Your task to perform on an android device: Empty the shopping cart on amazon. Search for razer blade on amazon, select the first entry, and add it to the cart. Image 0: 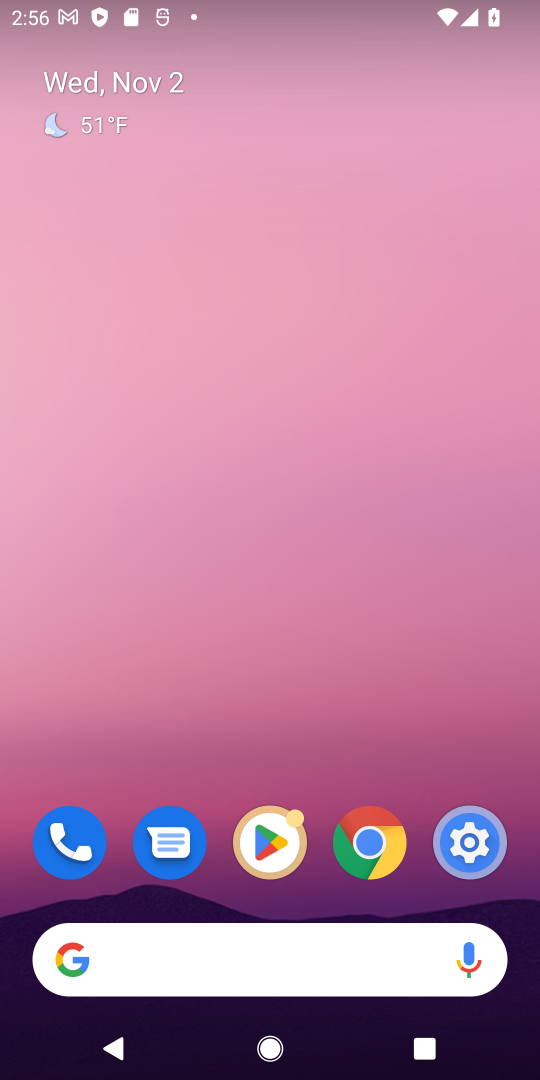
Step 0: click (269, 949)
Your task to perform on an android device: Empty the shopping cart on amazon. Search for razer blade on amazon, select the first entry, and add it to the cart. Image 1: 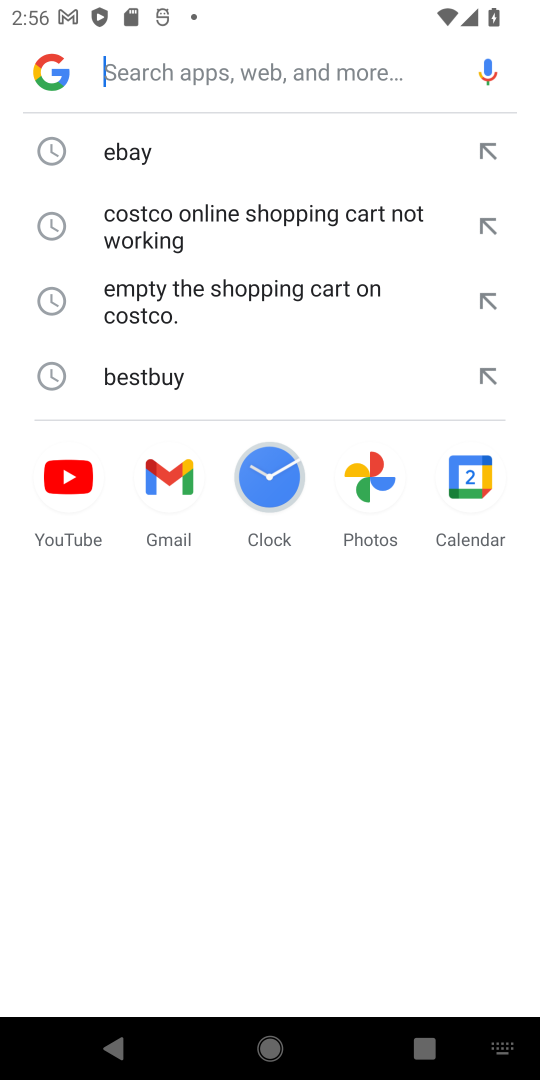
Step 1: type "amazon"
Your task to perform on an android device: Empty the shopping cart on amazon. Search for razer blade on amazon, select the first entry, and add it to the cart. Image 2: 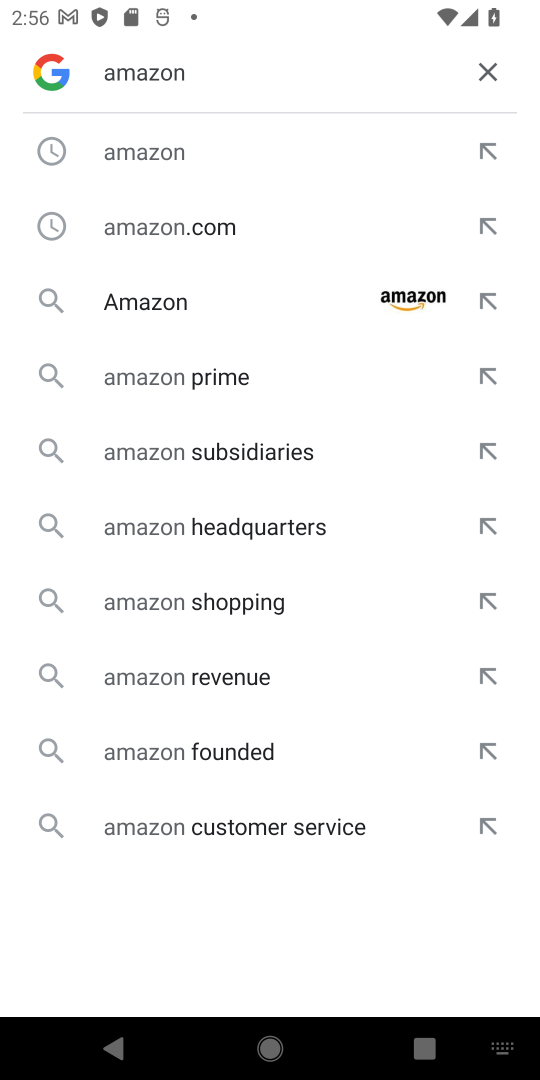
Step 2: click (150, 306)
Your task to perform on an android device: Empty the shopping cart on amazon. Search for razer blade on amazon, select the first entry, and add it to the cart. Image 3: 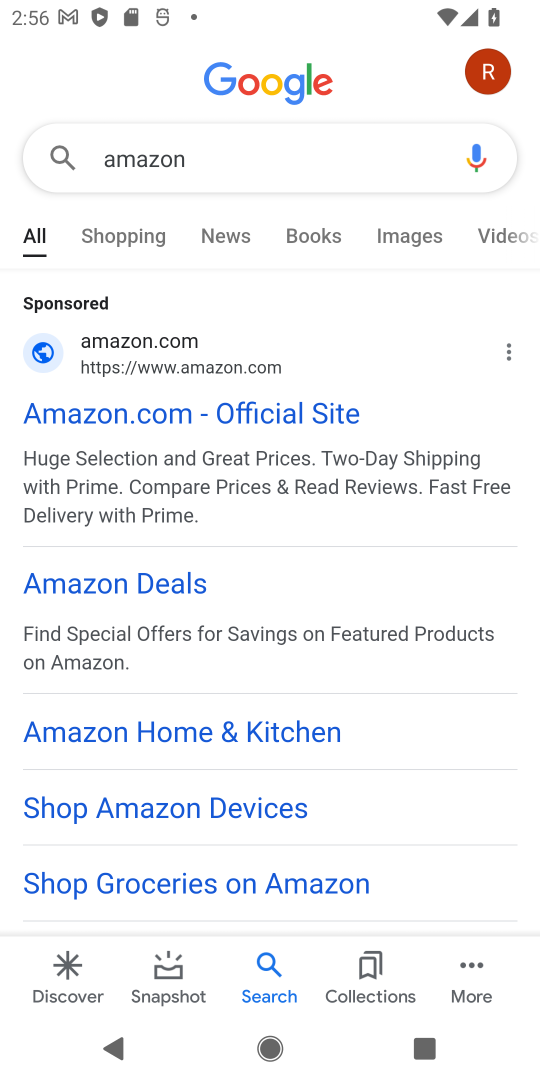
Step 3: click (131, 412)
Your task to perform on an android device: Empty the shopping cart on amazon. Search for razer blade on amazon, select the first entry, and add it to the cart. Image 4: 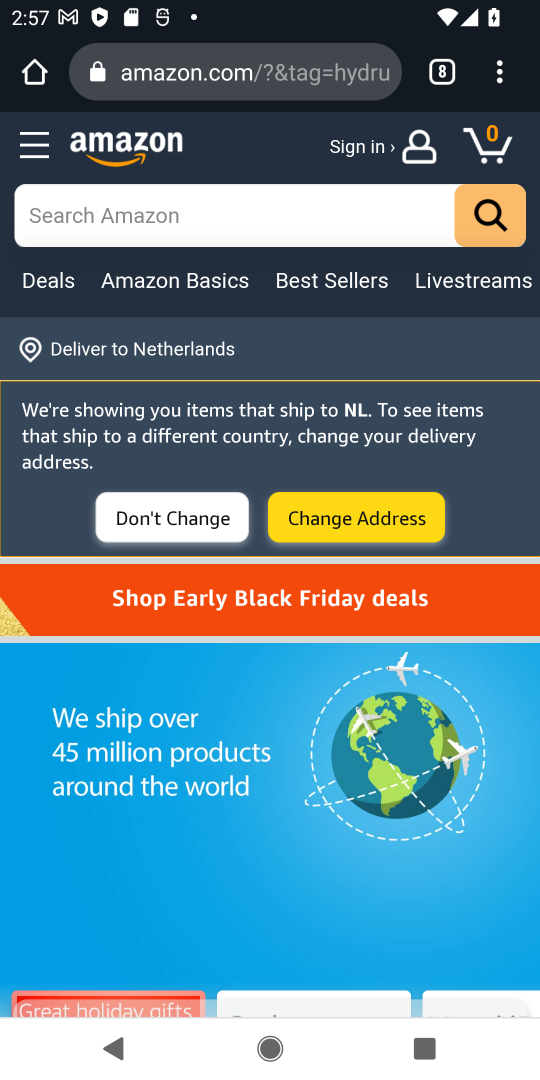
Step 4: click (208, 212)
Your task to perform on an android device: Empty the shopping cart on amazon. Search for razer blade on amazon, select the first entry, and add it to the cart. Image 5: 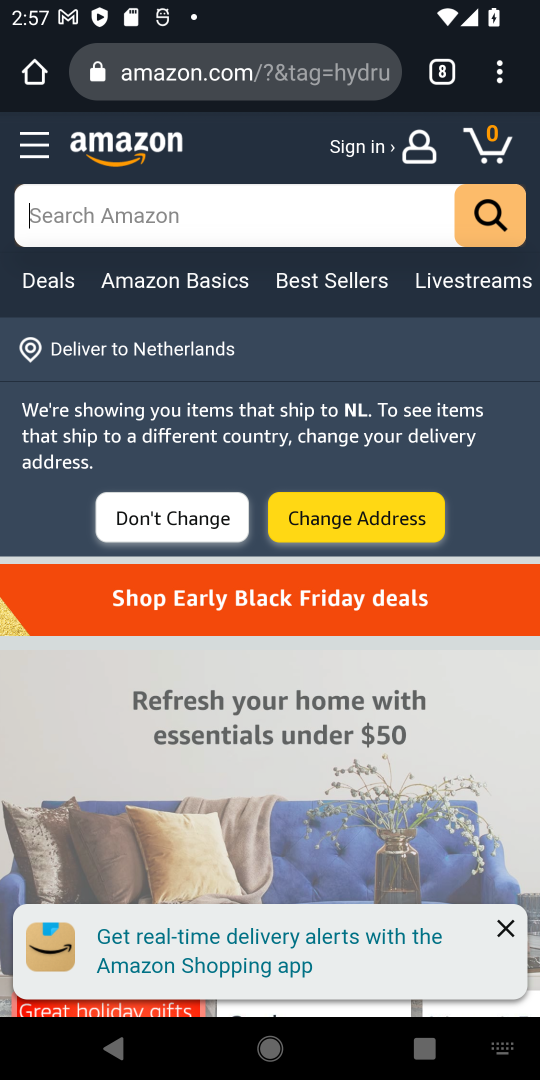
Step 5: type "razer b"
Your task to perform on an android device: Empty the shopping cart on amazon. Search for razer blade on amazon, select the first entry, and add it to the cart. Image 6: 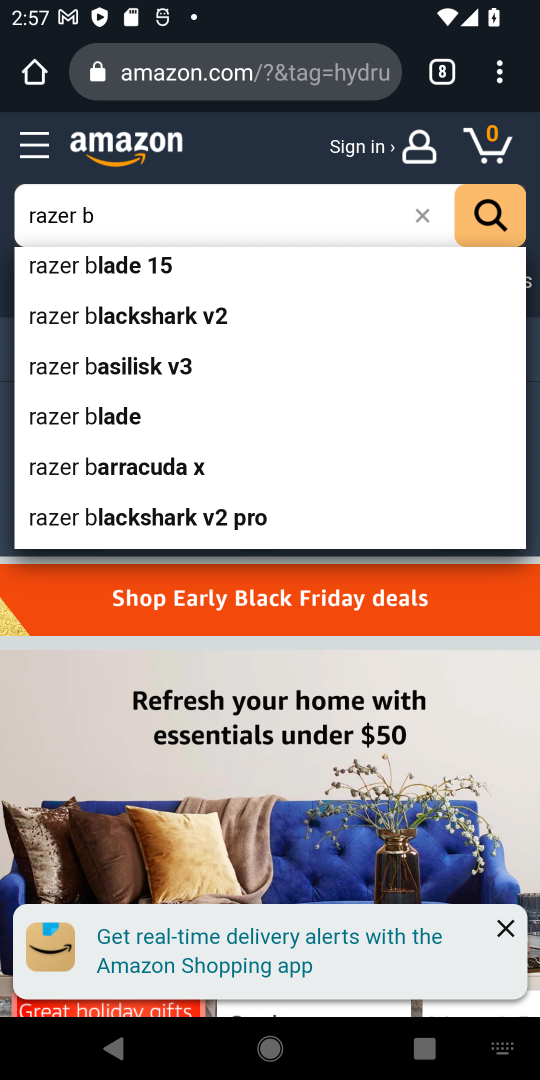
Step 6: click (115, 414)
Your task to perform on an android device: Empty the shopping cart on amazon. Search for razer blade on amazon, select the first entry, and add it to the cart. Image 7: 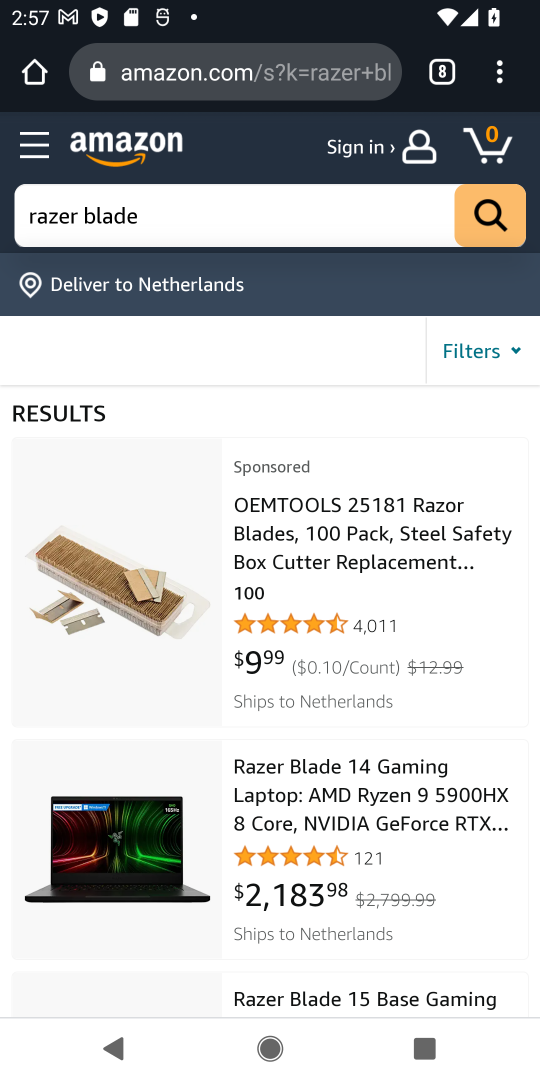
Step 7: click (354, 525)
Your task to perform on an android device: Empty the shopping cart on amazon. Search for razer blade on amazon, select the first entry, and add it to the cart. Image 8: 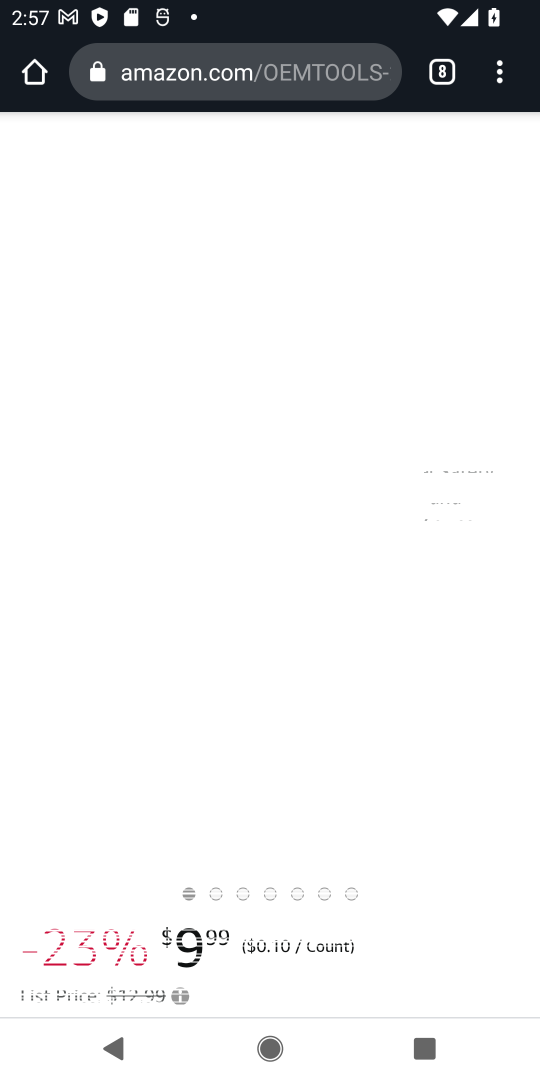
Step 8: drag from (388, 849) to (341, 516)
Your task to perform on an android device: Empty the shopping cart on amazon. Search for razer blade on amazon, select the first entry, and add it to the cart. Image 9: 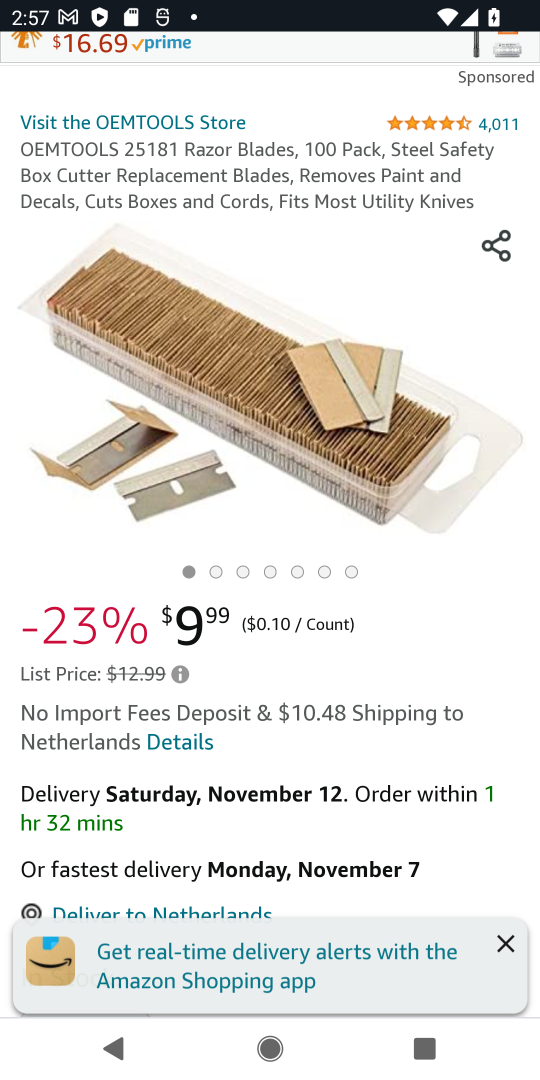
Step 9: drag from (452, 561) to (411, 309)
Your task to perform on an android device: Empty the shopping cart on amazon. Search for razer blade on amazon, select the first entry, and add it to the cart. Image 10: 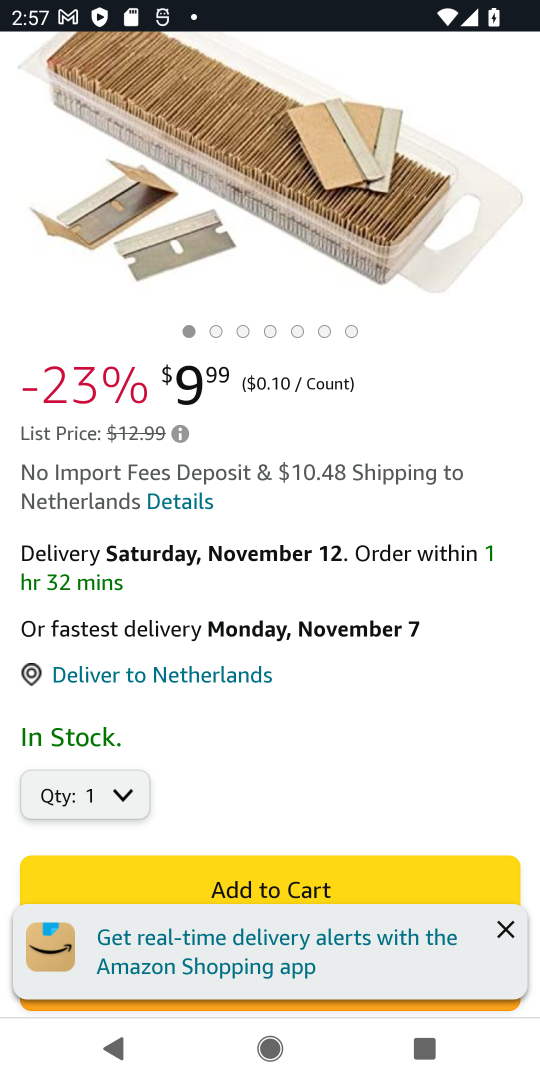
Step 10: drag from (319, 702) to (227, 363)
Your task to perform on an android device: Empty the shopping cart on amazon. Search for razer blade on amazon, select the first entry, and add it to the cart. Image 11: 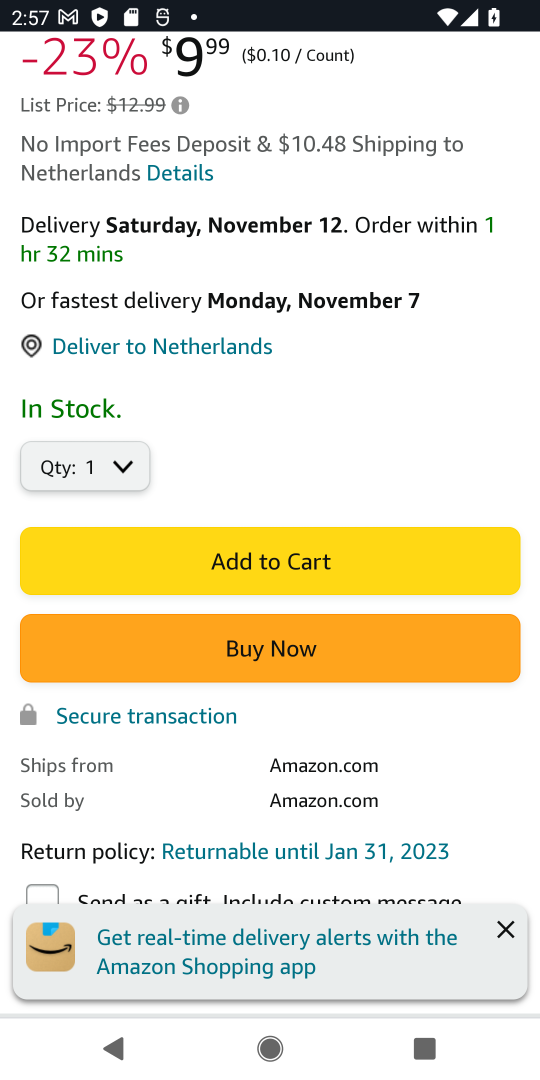
Step 11: click (284, 565)
Your task to perform on an android device: Empty the shopping cart on amazon. Search for razer blade on amazon, select the first entry, and add it to the cart. Image 12: 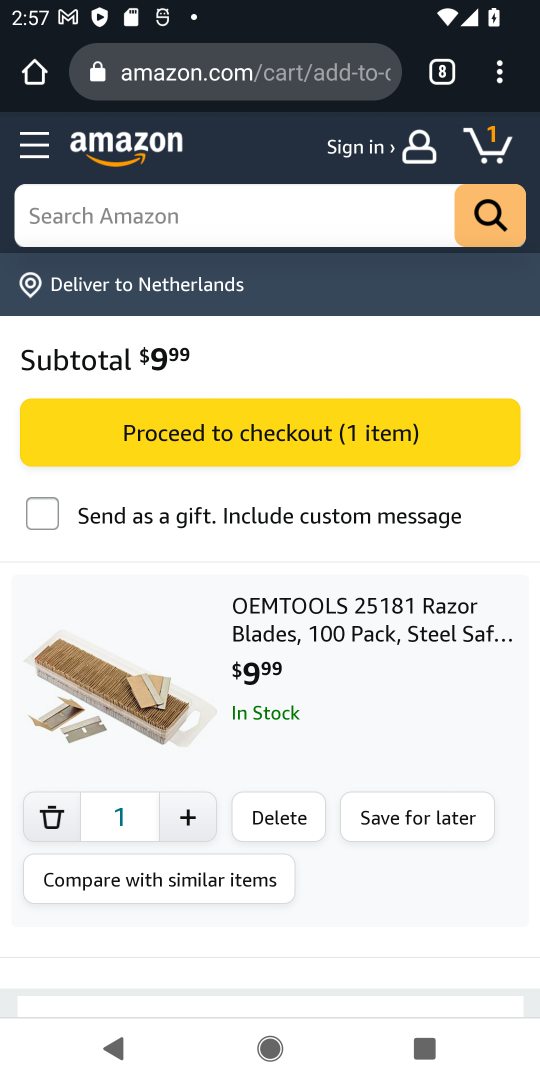
Step 12: task complete